Your task to perform on an android device: set the timer Image 0: 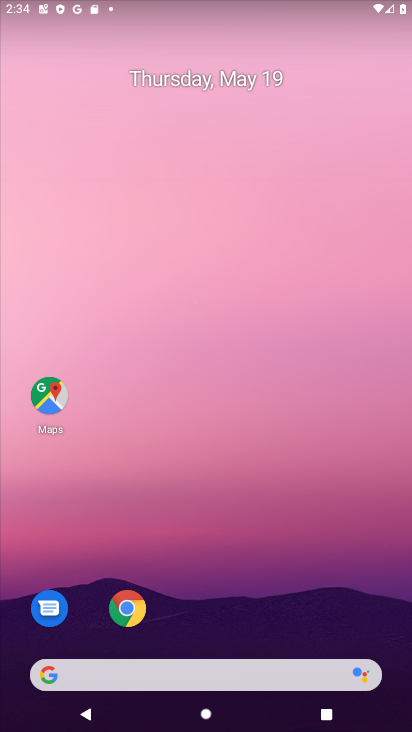
Step 0: drag from (255, 616) to (237, 156)
Your task to perform on an android device: set the timer Image 1: 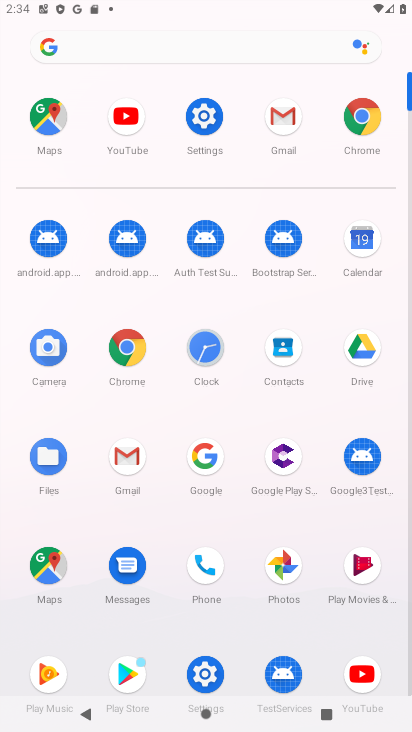
Step 1: click (214, 355)
Your task to perform on an android device: set the timer Image 2: 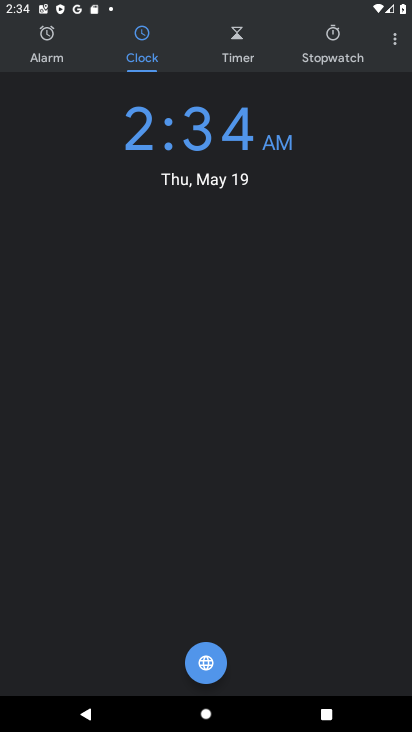
Step 2: click (249, 54)
Your task to perform on an android device: set the timer Image 3: 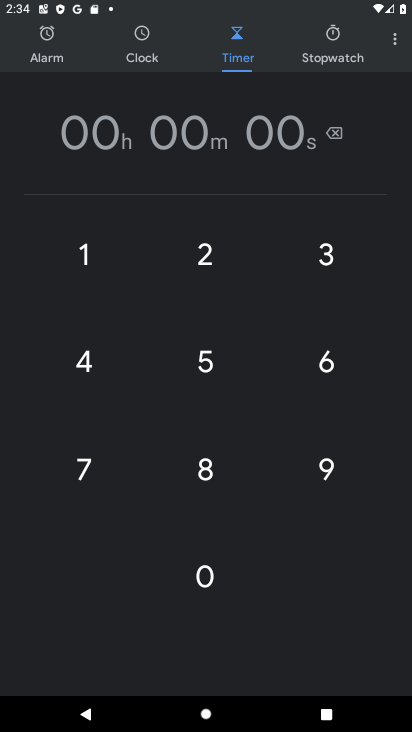
Step 3: type ""
Your task to perform on an android device: set the timer Image 4: 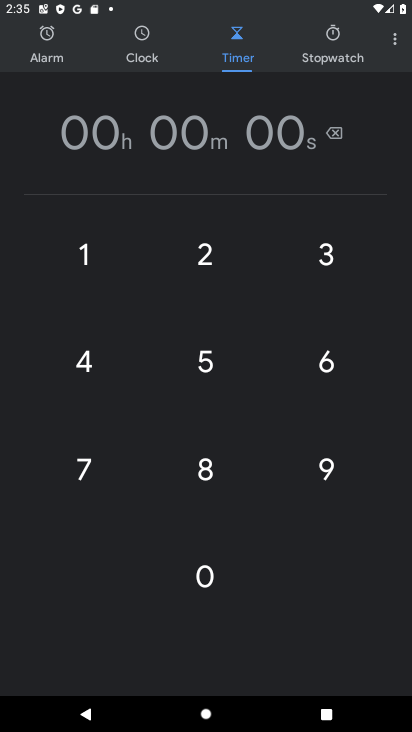
Step 4: type "100000"
Your task to perform on an android device: set the timer Image 5: 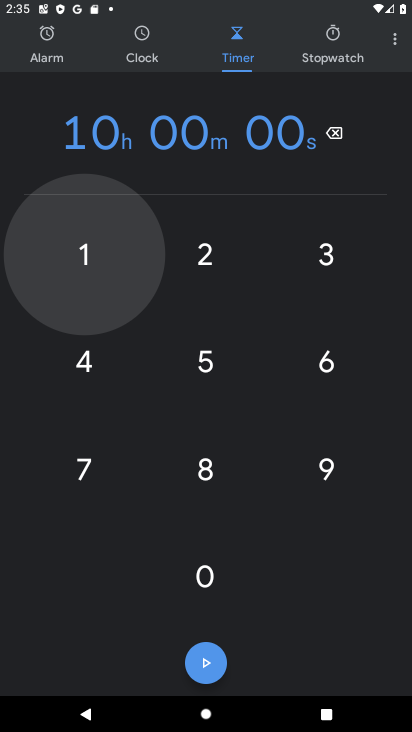
Step 5: click (203, 675)
Your task to perform on an android device: set the timer Image 6: 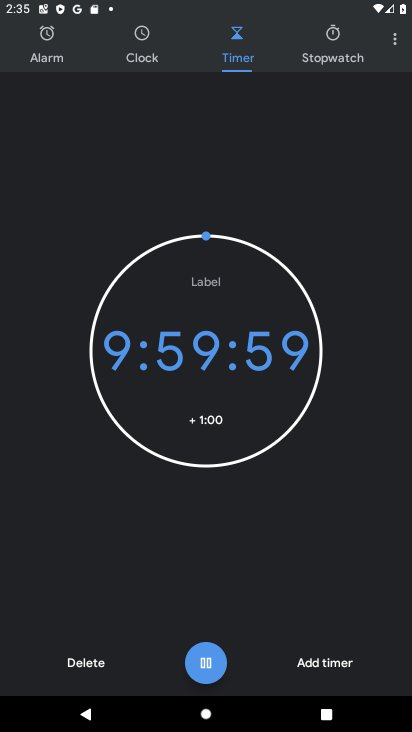
Step 6: task complete